Your task to perform on an android device: turn pop-ups on in chrome Image 0: 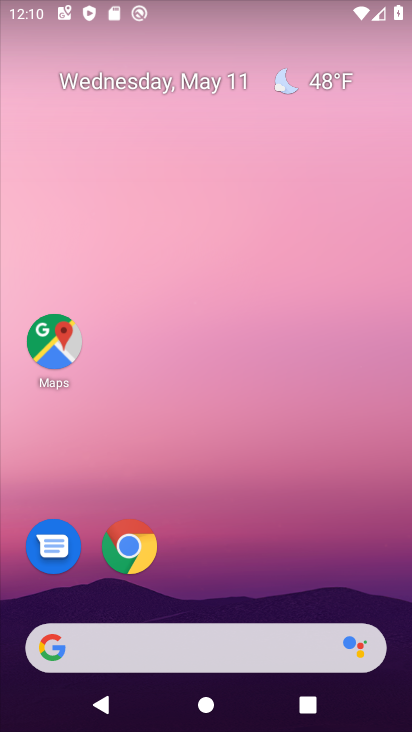
Step 0: drag from (176, 648) to (271, 268)
Your task to perform on an android device: turn pop-ups on in chrome Image 1: 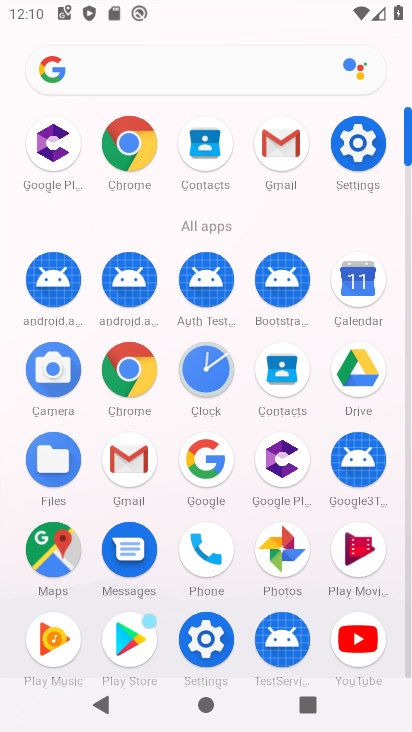
Step 1: click (143, 149)
Your task to perform on an android device: turn pop-ups on in chrome Image 2: 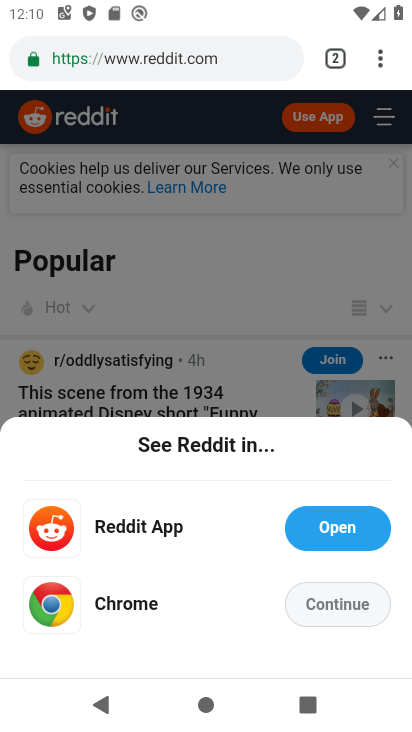
Step 2: drag from (379, 66) to (212, 581)
Your task to perform on an android device: turn pop-ups on in chrome Image 3: 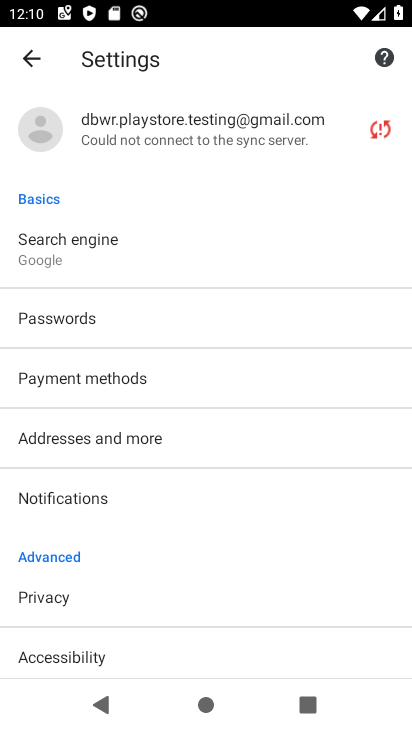
Step 3: drag from (127, 617) to (256, 310)
Your task to perform on an android device: turn pop-ups on in chrome Image 4: 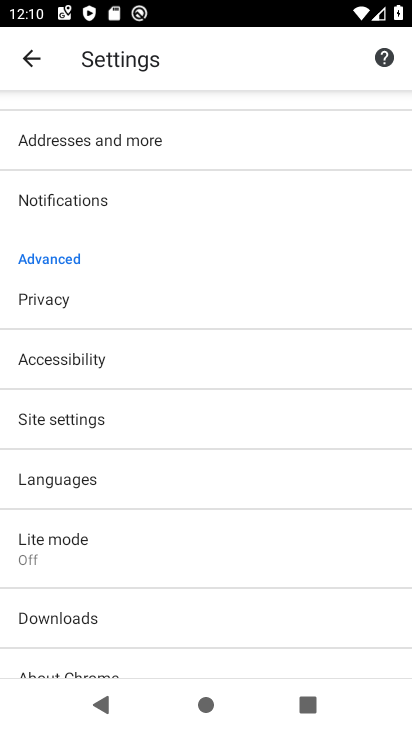
Step 4: click (91, 411)
Your task to perform on an android device: turn pop-ups on in chrome Image 5: 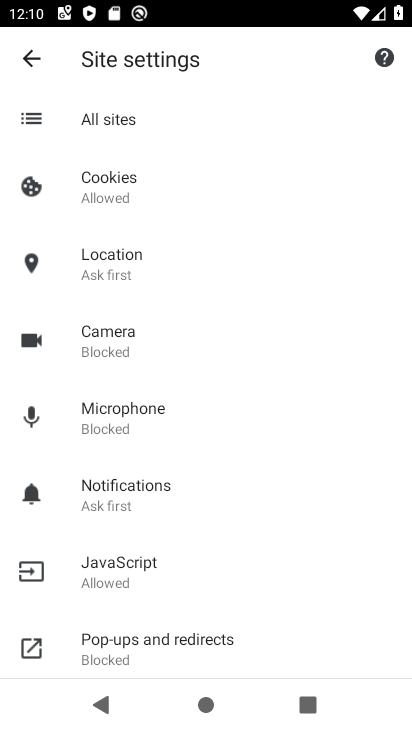
Step 5: click (159, 649)
Your task to perform on an android device: turn pop-ups on in chrome Image 6: 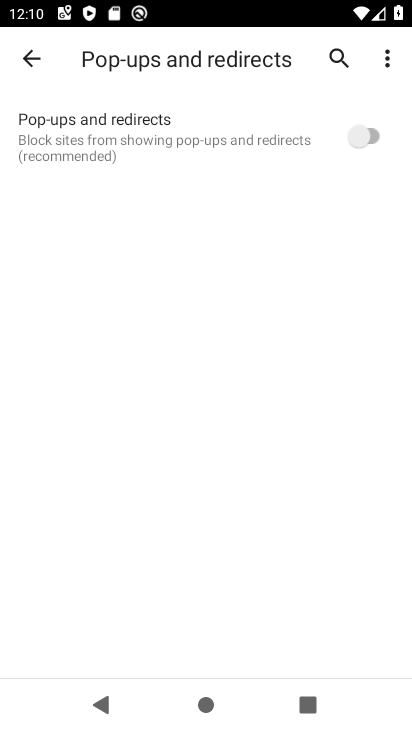
Step 6: click (369, 138)
Your task to perform on an android device: turn pop-ups on in chrome Image 7: 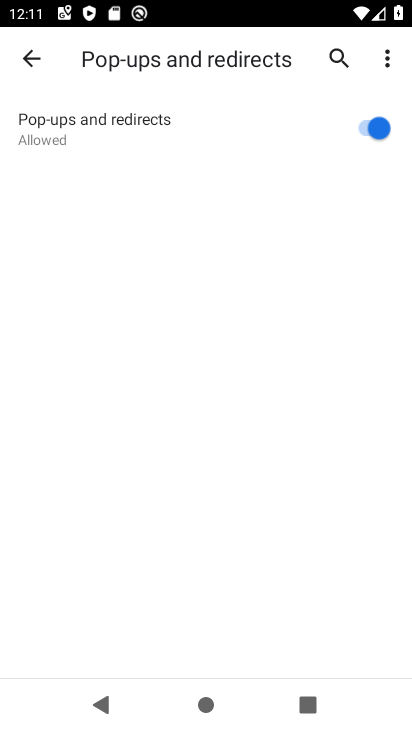
Step 7: task complete